Your task to perform on an android device: Show me the alarms in the clock app Image 0: 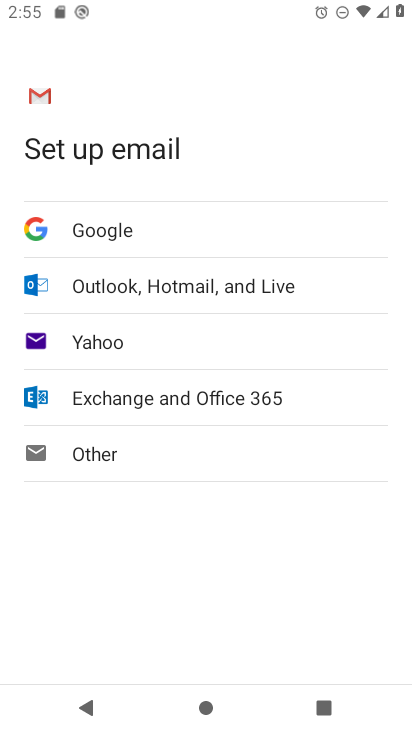
Step 0: press home button
Your task to perform on an android device: Show me the alarms in the clock app Image 1: 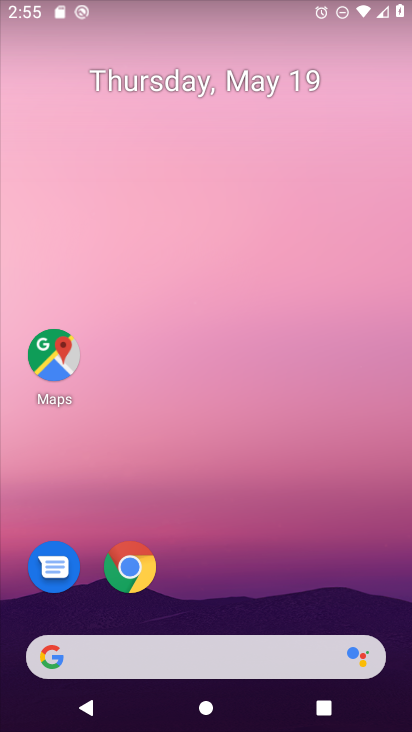
Step 1: drag from (243, 559) to (229, 31)
Your task to perform on an android device: Show me the alarms in the clock app Image 2: 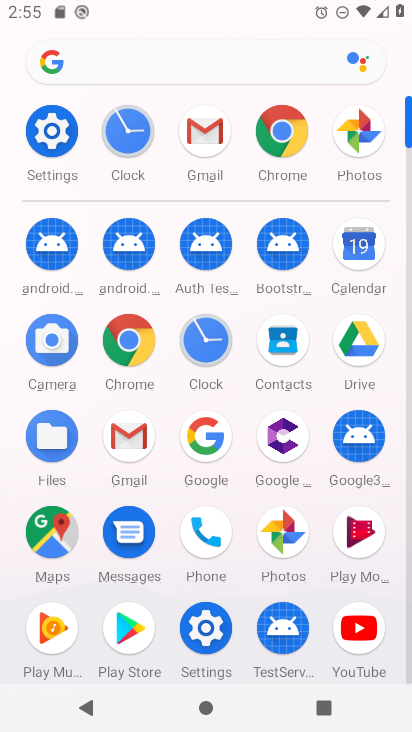
Step 2: click (129, 130)
Your task to perform on an android device: Show me the alarms in the clock app Image 3: 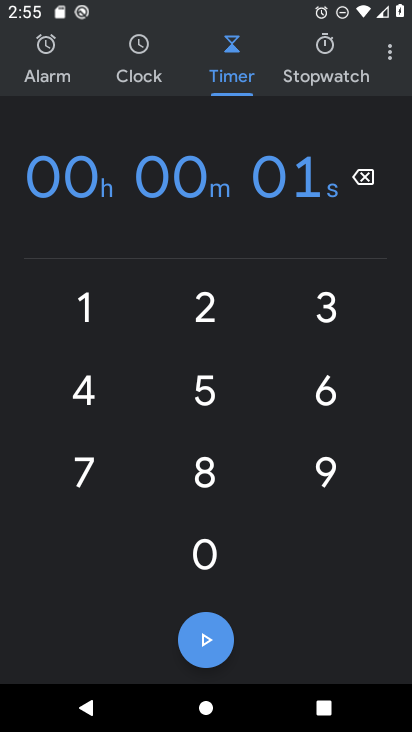
Step 3: click (54, 57)
Your task to perform on an android device: Show me the alarms in the clock app Image 4: 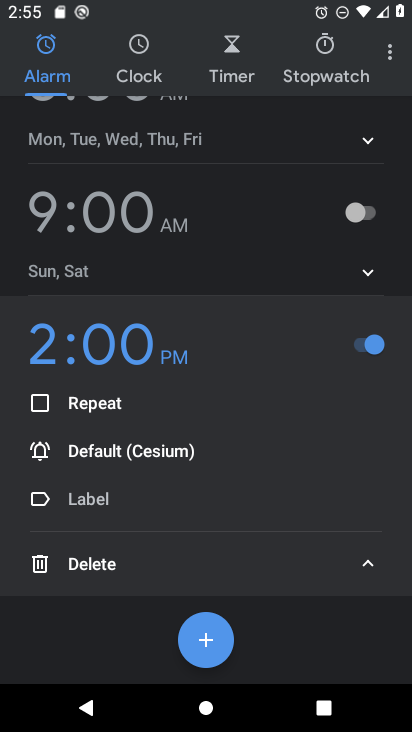
Step 4: task complete